Your task to perform on an android device: delete the emails in spam in the gmail app Image 0: 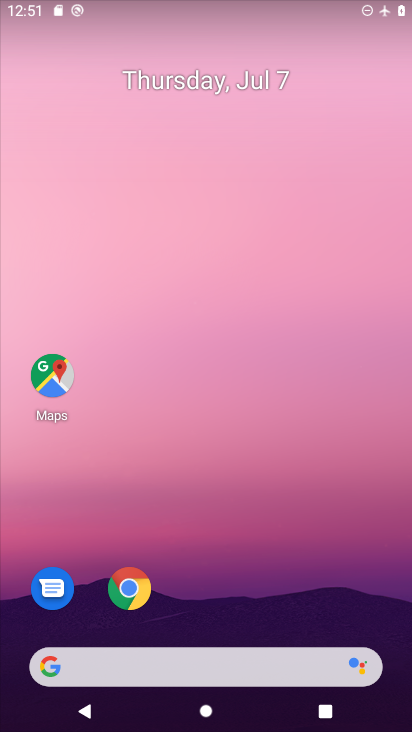
Step 0: drag from (191, 570) to (315, 16)
Your task to perform on an android device: delete the emails in spam in the gmail app Image 1: 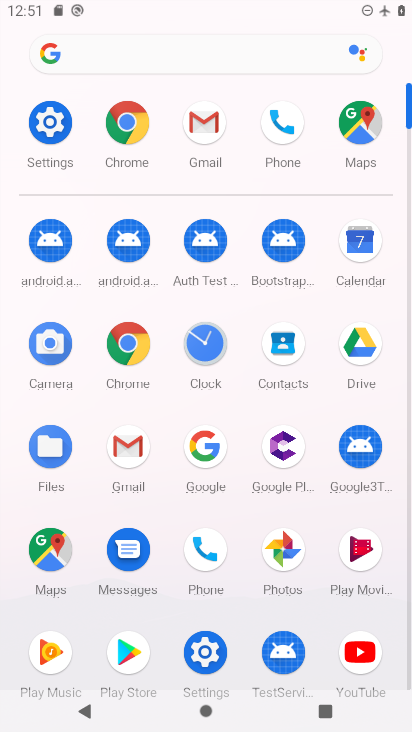
Step 1: click (131, 457)
Your task to perform on an android device: delete the emails in spam in the gmail app Image 2: 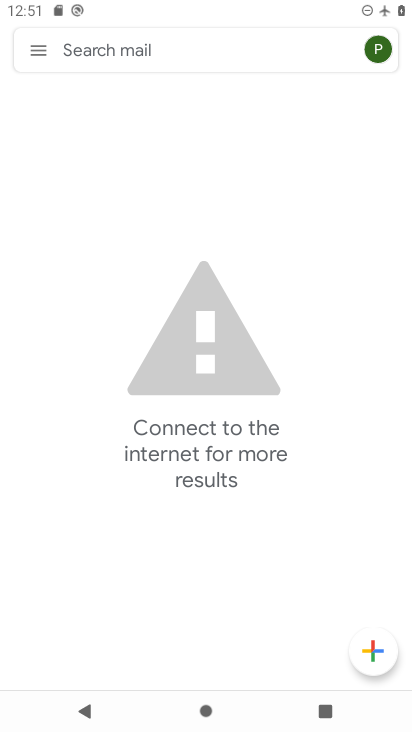
Step 2: click (42, 45)
Your task to perform on an android device: delete the emails in spam in the gmail app Image 3: 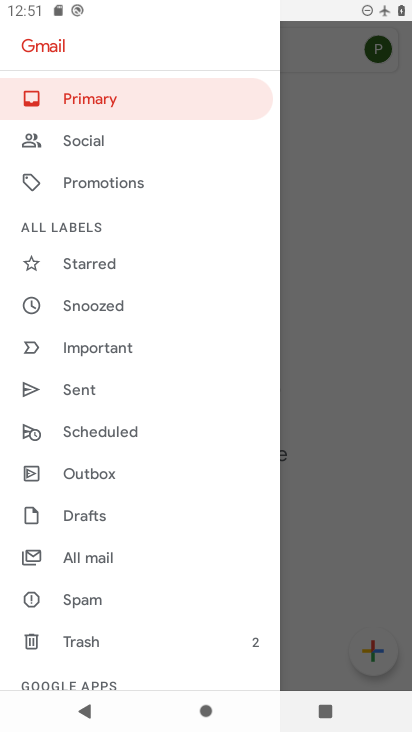
Step 3: click (121, 599)
Your task to perform on an android device: delete the emails in spam in the gmail app Image 4: 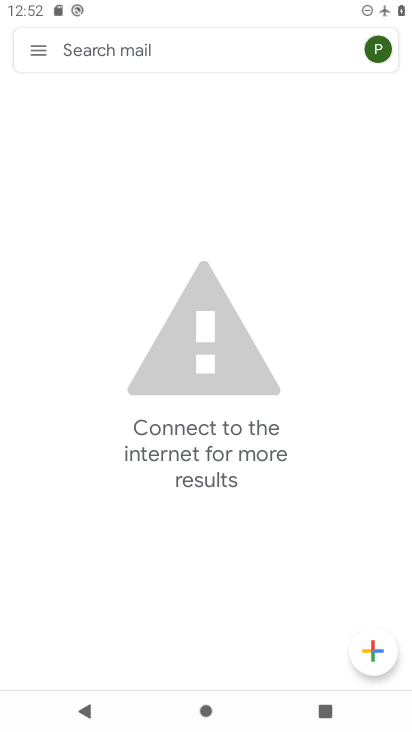
Step 4: click (45, 53)
Your task to perform on an android device: delete the emails in spam in the gmail app Image 5: 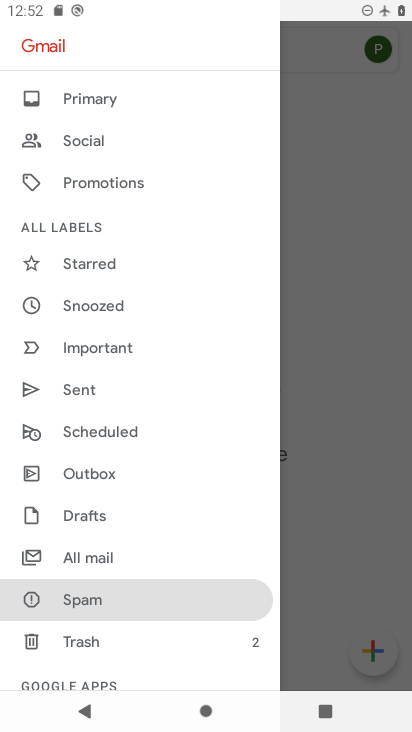
Step 5: click (117, 603)
Your task to perform on an android device: delete the emails in spam in the gmail app Image 6: 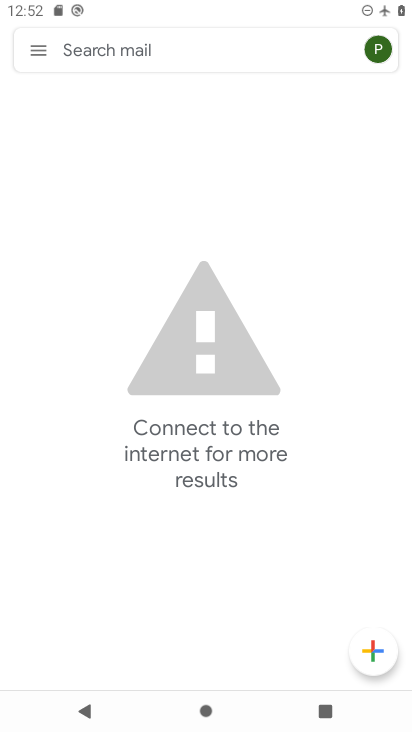
Step 6: task complete